Your task to perform on an android device: Open Amazon Image 0: 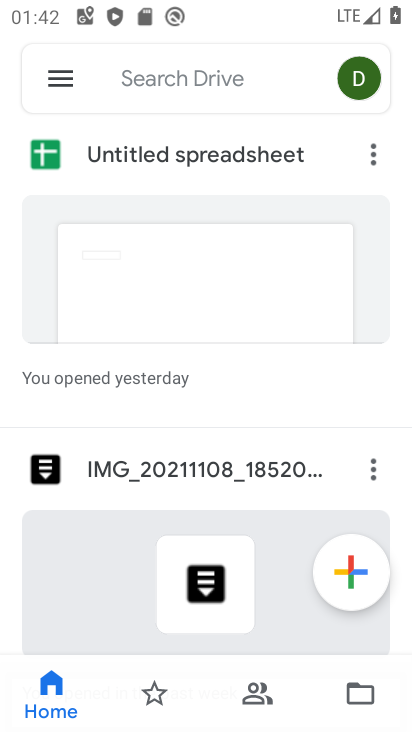
Step 0: press home button
Your task to perform on an android device: Open Amazon Image 1: 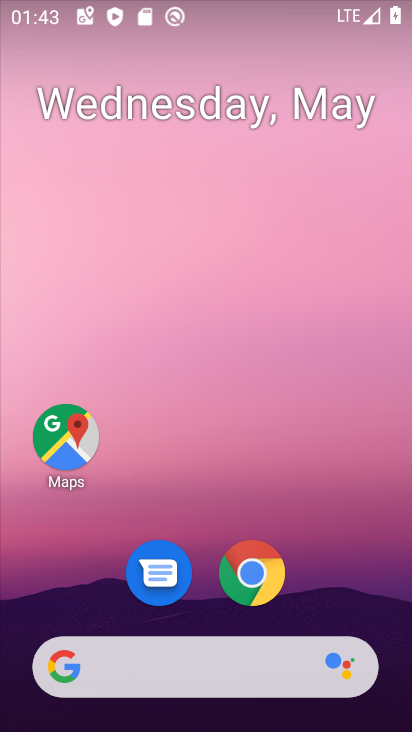
Step 1: click (251, 565)
Your task to perform on an android device: Open Amazon Image 2: 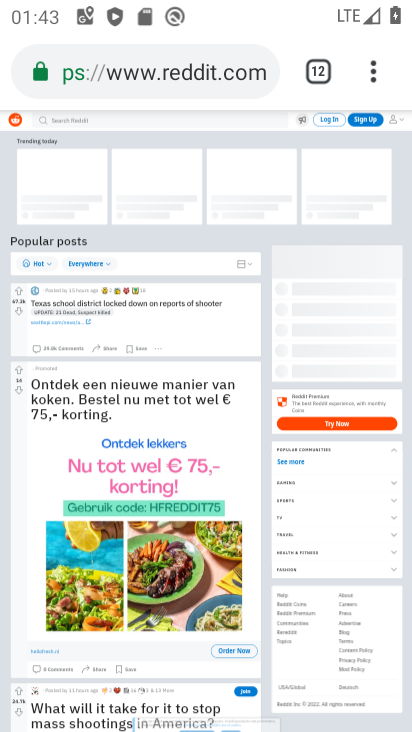
Step 2: click (358, 65)
Your task to perform on an android device: Open Amazon Image 3: 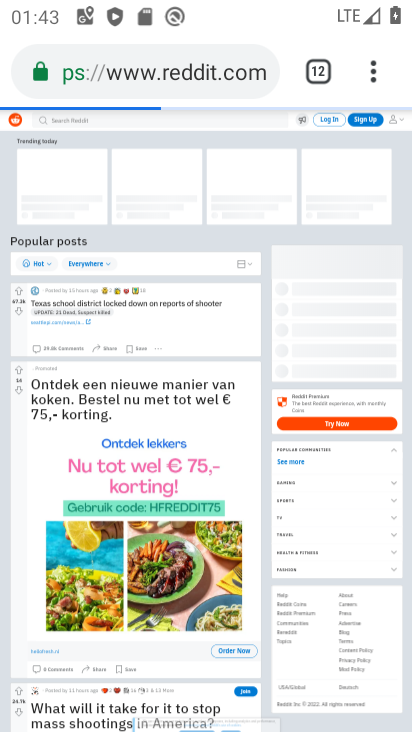
Step 3: click (372, 67)
Your task to perform on an android device: Open Amazon Image 4: 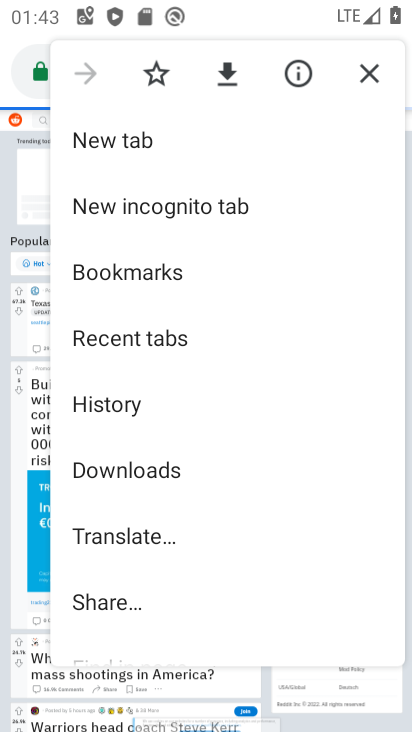
Step 4: click (156, 140)
Your task to perform on an android device: Open Amazon Image 5: 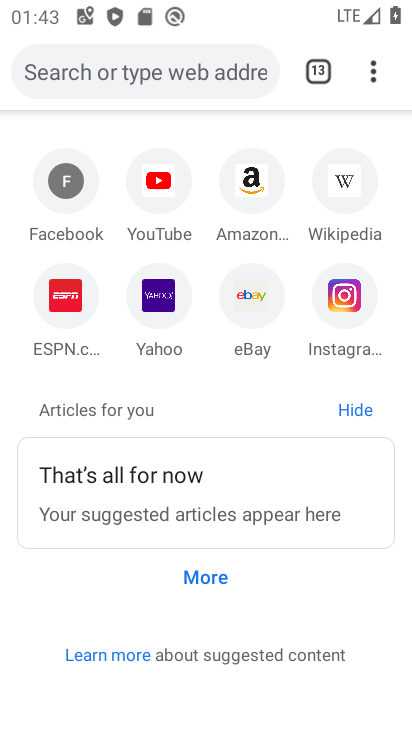
Step 5: click (239, 198)
Your task to perform on an android device: Open Amazon Image 6: 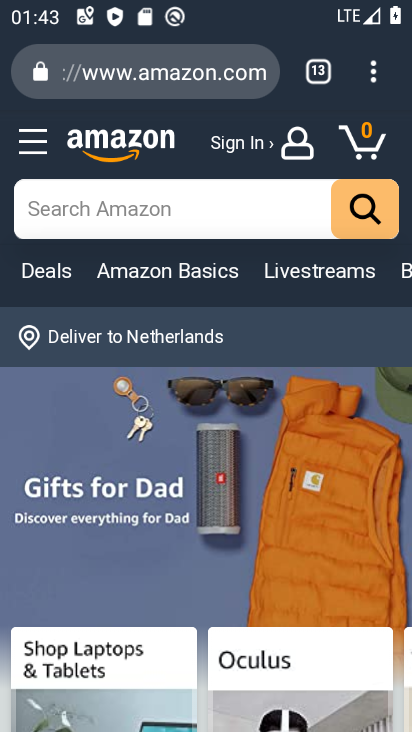
Step 6: task complete